Your task to perform on an android device: Open CNN.com Image 0: 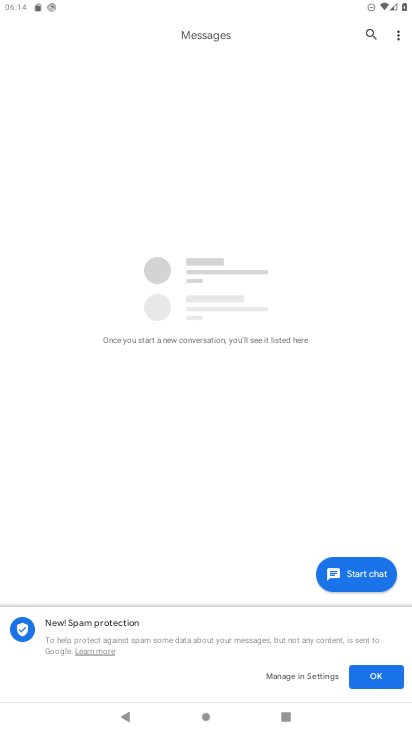
Step 0: press home button
Your task to perform on an android device: Open CNN.com Image 1: 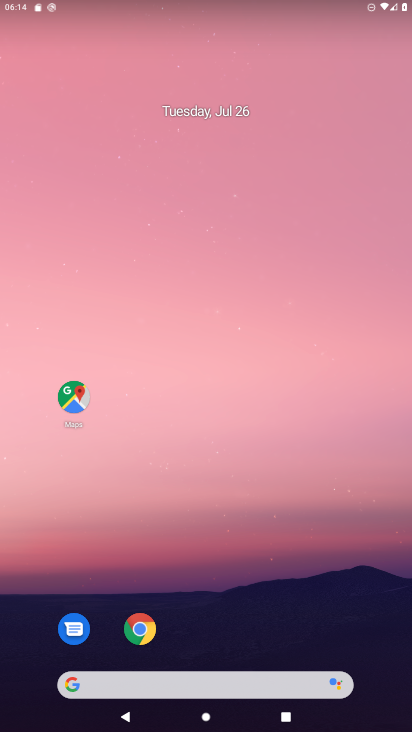
Step 1: click (143, 631)
Your task to perform on an android device: Open CNN.com Image 2: 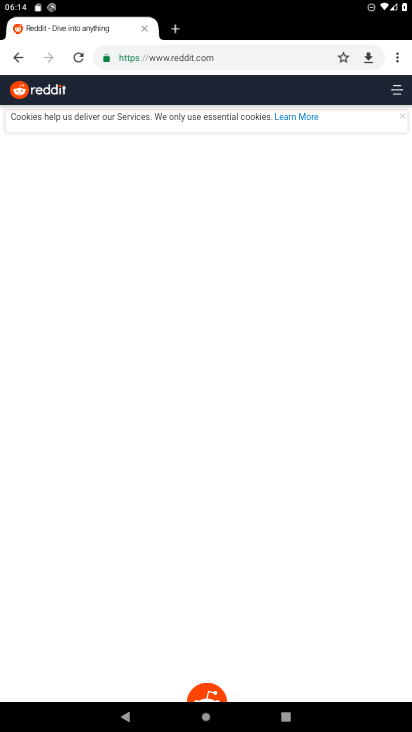
Step 2: click (163, 55)
Your task to perform on an android device: Open CNN.com Image 3: 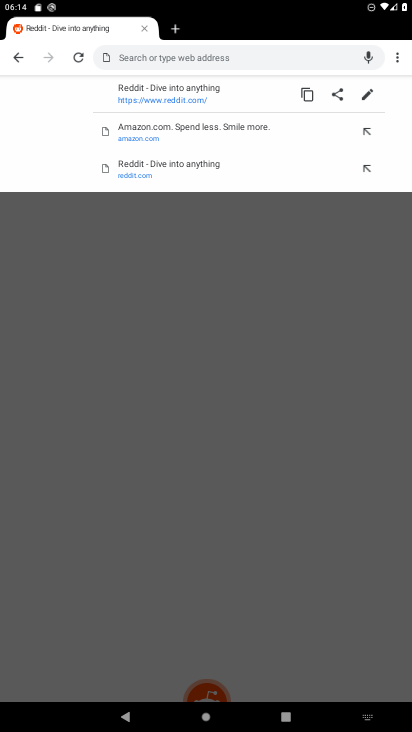
Step 3: type "www.cnn.com"
Your task to perform on an android device: Open CNN.com Image 4: 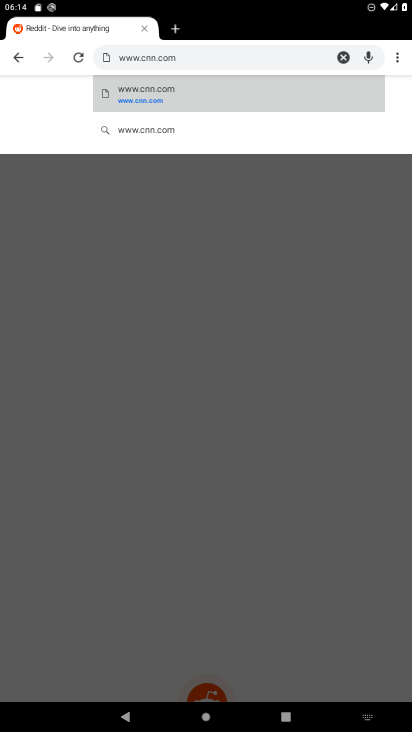
Step 4: click (134, 98)
Your task to perform on an android device: Open CNN.com Image 5: 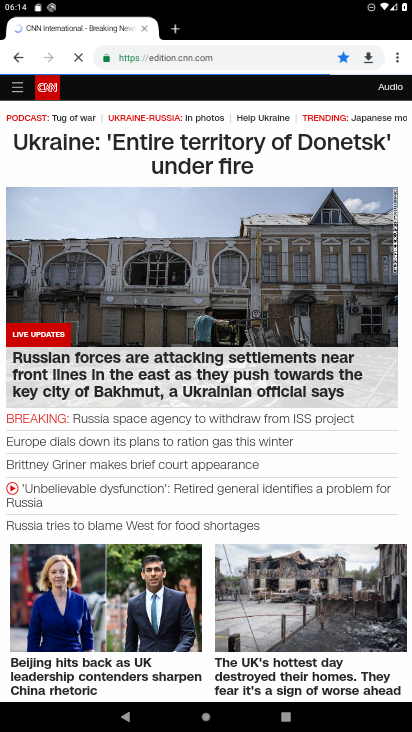
Step 5: task complete